Your task to perform on an android device: change text size in settings app Image 0: 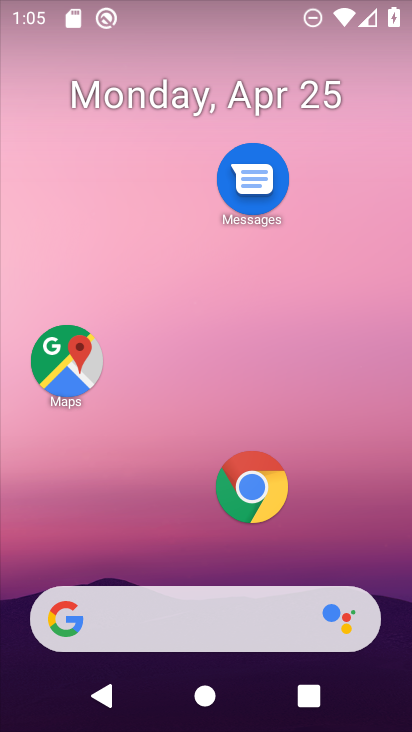
Step 0: drag from (311, 556) to (366, 2)
Your task to perform on an android device: change text size in settings app Image 1: 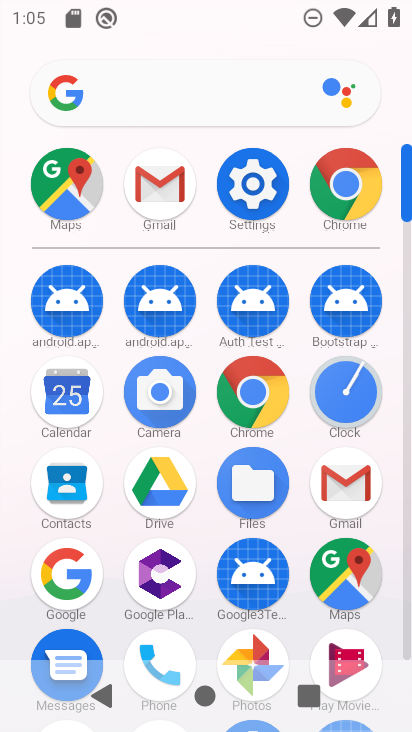
Step 1: click (256, 199)
Your task to perform on an android device: change text size in settings app Image 2: 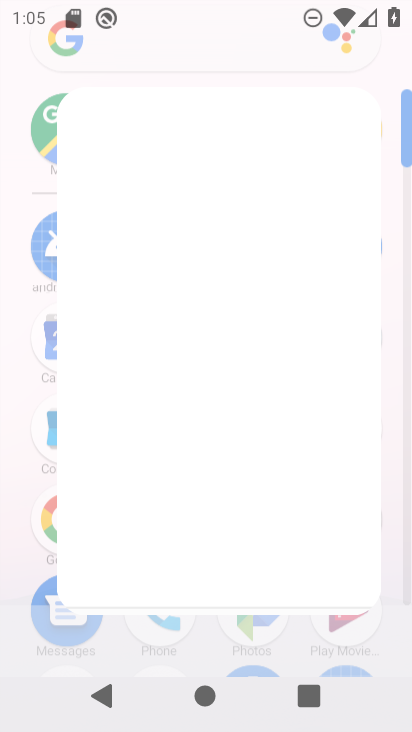
Step 2: click (242, 176)
Your task to perform on an android device: change text size in settings app Image 3: 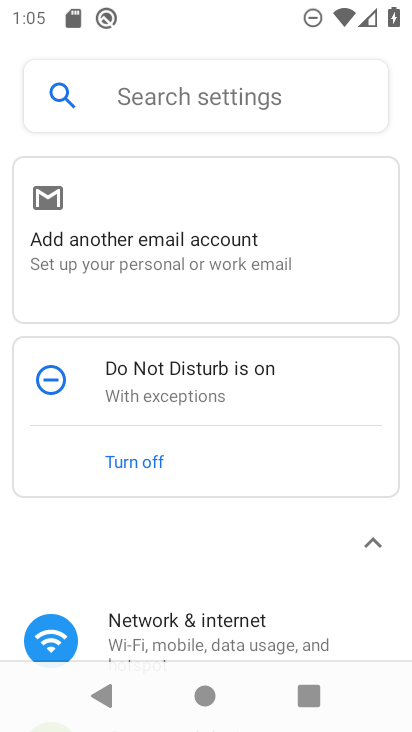
Step 3: drag from (276, 578) to (394, 88)
Your task to perform on an android device: change text size in settings app Image 4: 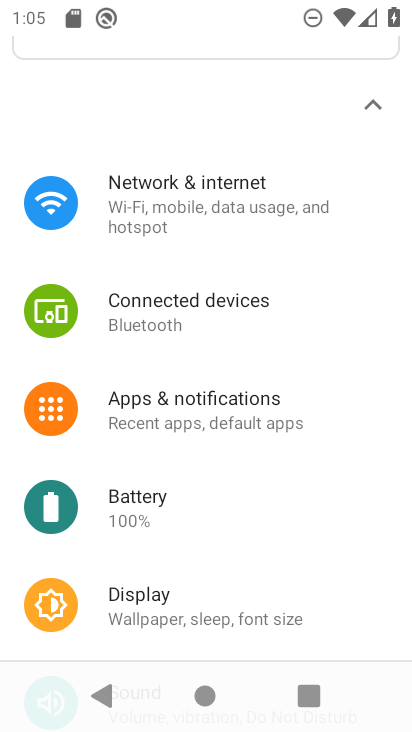
Step 4: drag from (337, 551) to (394, 180)
Your task to perform on an android device: change text size in settings app Image 5: 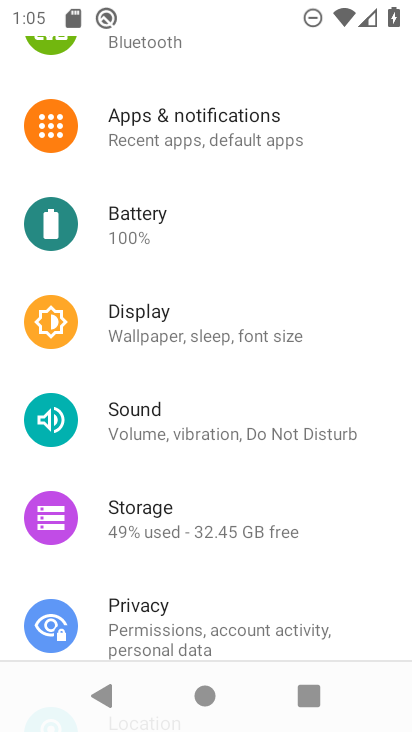
Step 5: drag from (303, 485) to (342, 239)
Your task to perform on an android device: change text size in settings app Image 6: 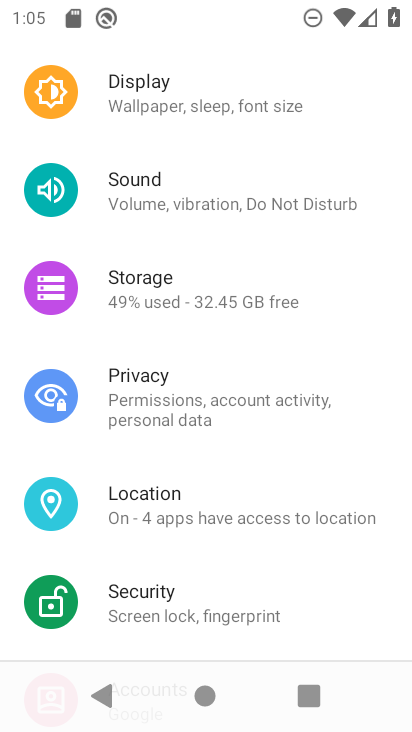
Step 6: drag from (245, 339) to (338, 122)
Your task to perform on an android device: change text size in settings app Image 7: 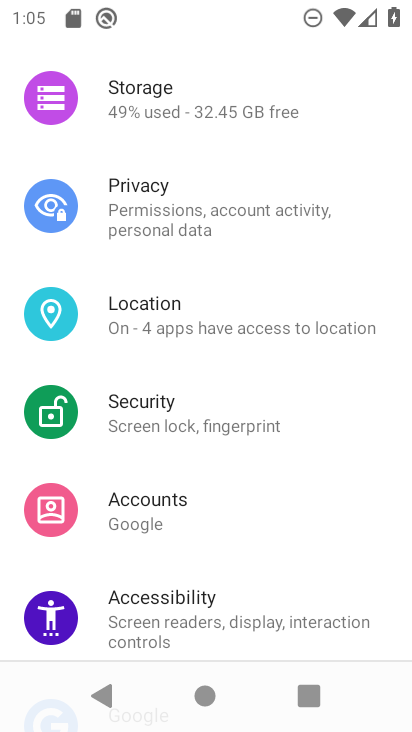
Step 7: drag from (275, 403) to (310, 265)
Your task to perform on an android device: change text size in settings app Image 8: 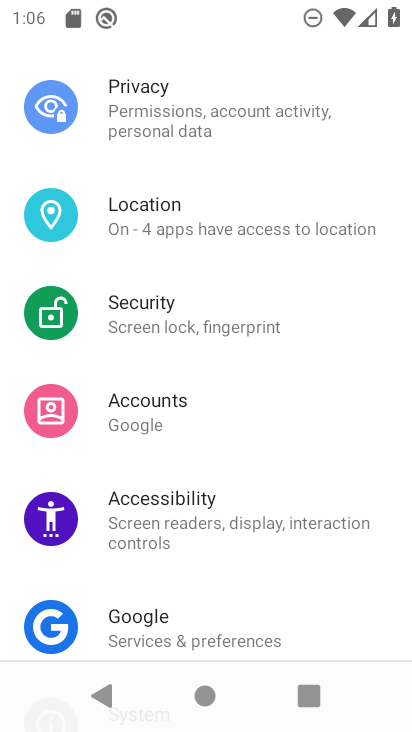
Step 8: drag from (392, 588) to (411, 245)
Your task to perform on an android device: change text size in settings app Image 9: 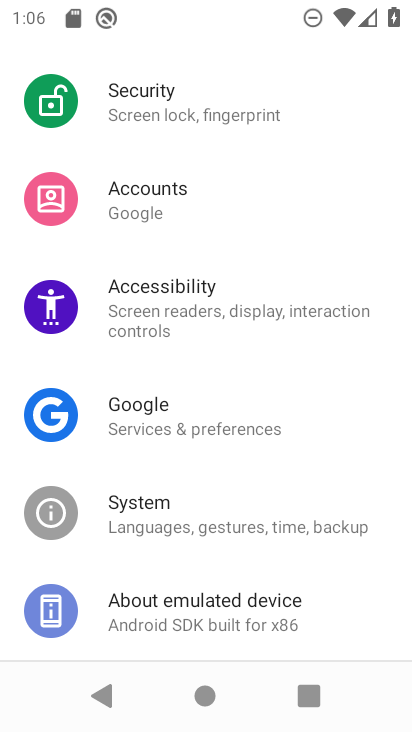
Step 9: click (130, 334)
Your task to perform on an android device: change text size in settings app Image 10: 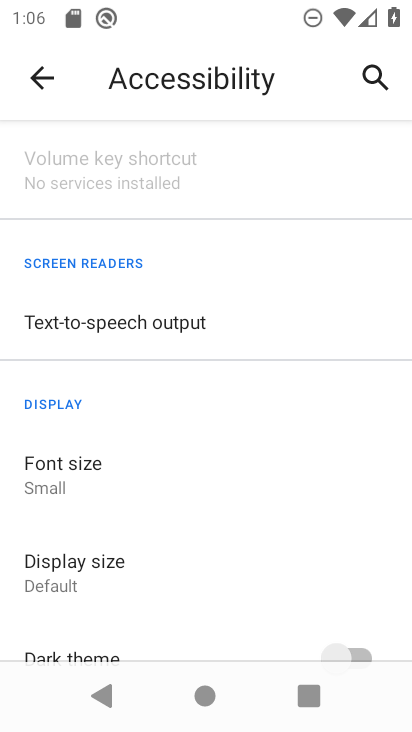
Step 10: click (96, 479)
Your task to perform on an android device: change text size in settings app Image 11: 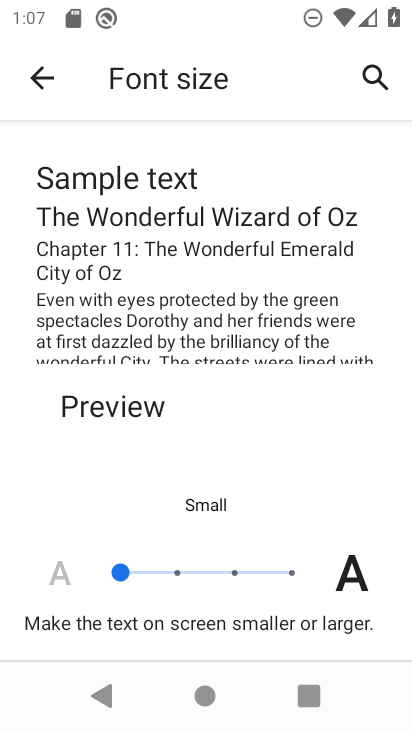
Step 11: click (147, 574)
Your task to perform on an android device: change text size in settings app Image 12: 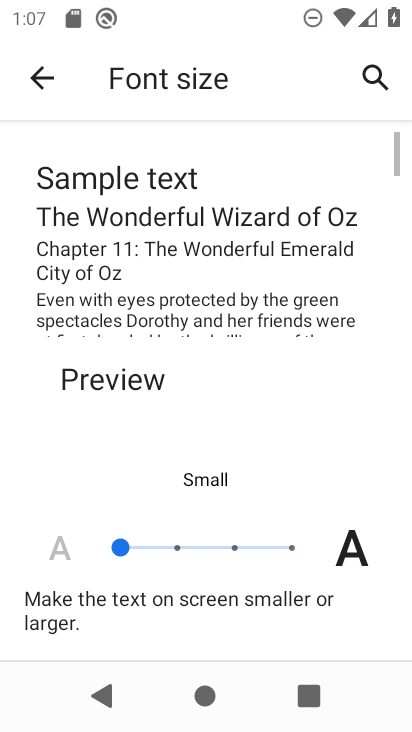
Step 12: task complete